Your task to perform on an android device: Open privacy settings Image 0: 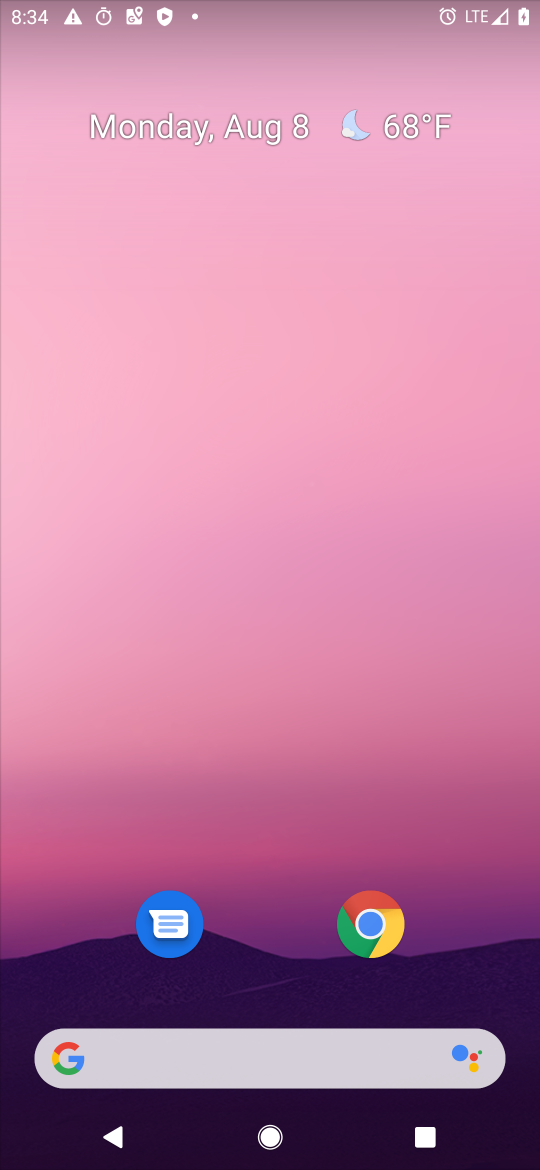
Step 0: drag from (235, 972) to (424, 42)
Your task to perform on an android device: Open privacy settings Image 1: 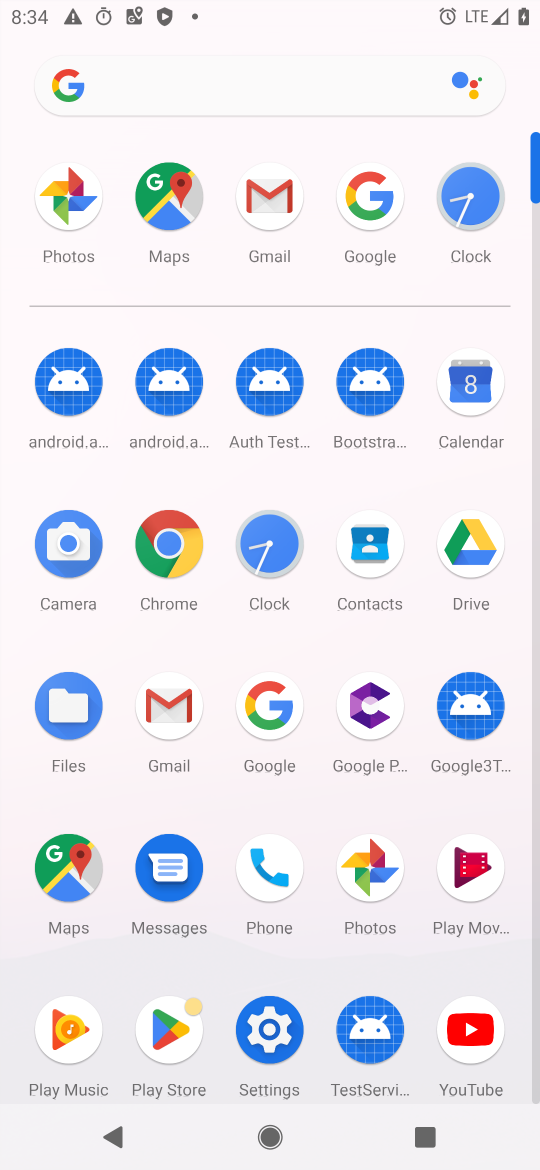
Step 1: drag from (209, 964) to (173, 156)
Your task to perform on an android device: Open privacy settings Image 2: 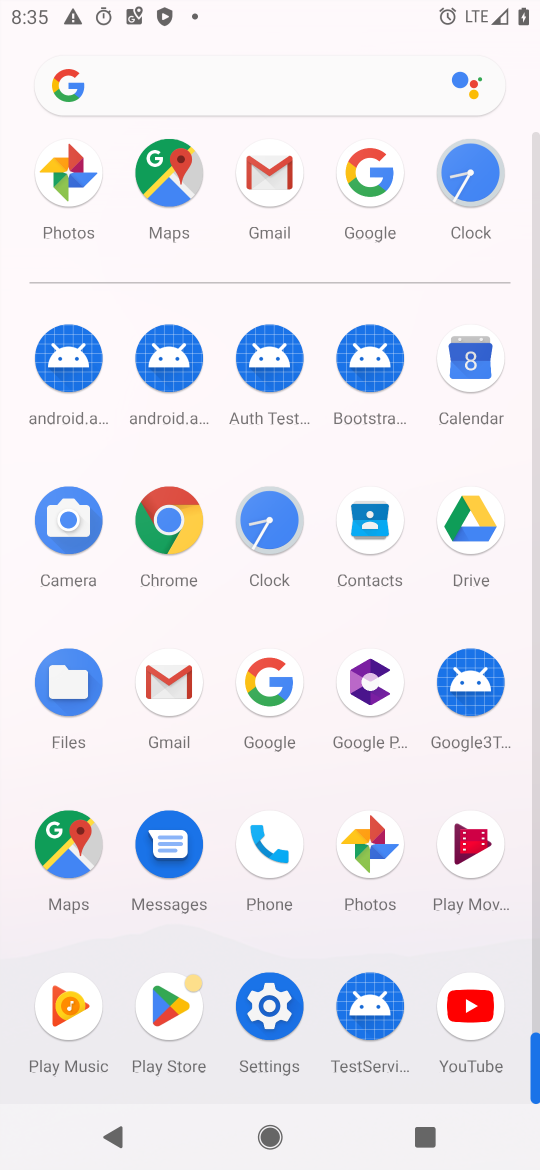
Step 2: click (251, 993)
Your task to perform on an android device: Open privacy settings Image 3: 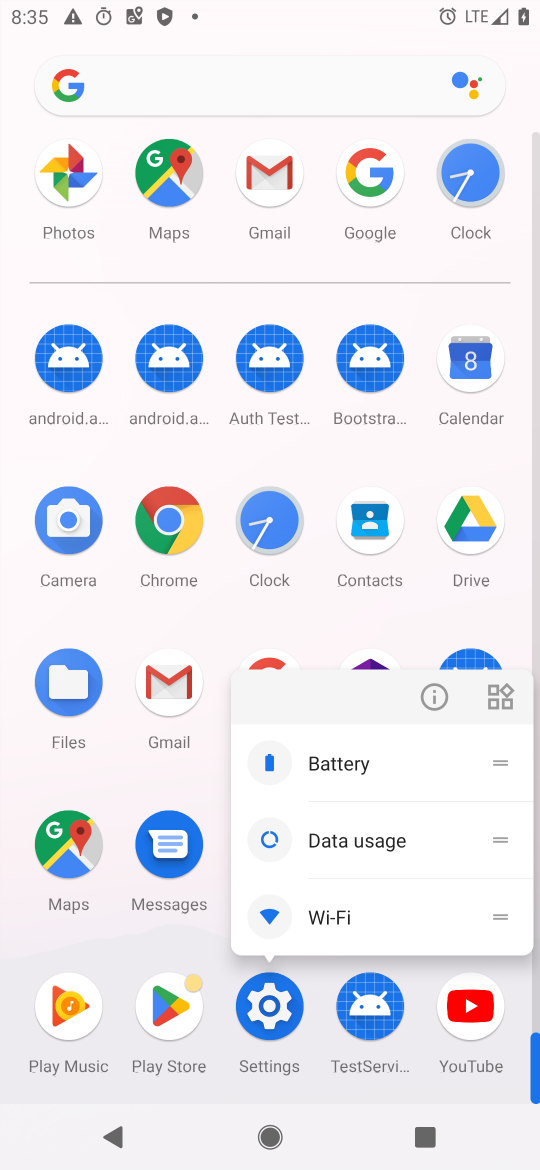
Step 3: click (436, 702)
Your task to perform on an android device: Open privacy settings Image 4: 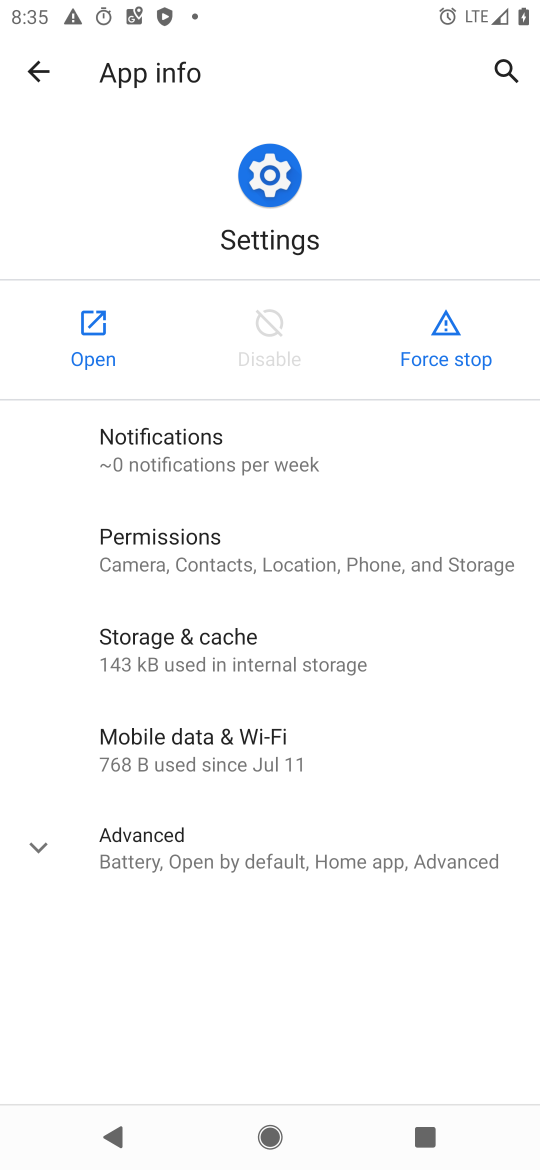
Step 4: click (94, 346)
Your task to perform on an android device: Open privacy settings Image 5: 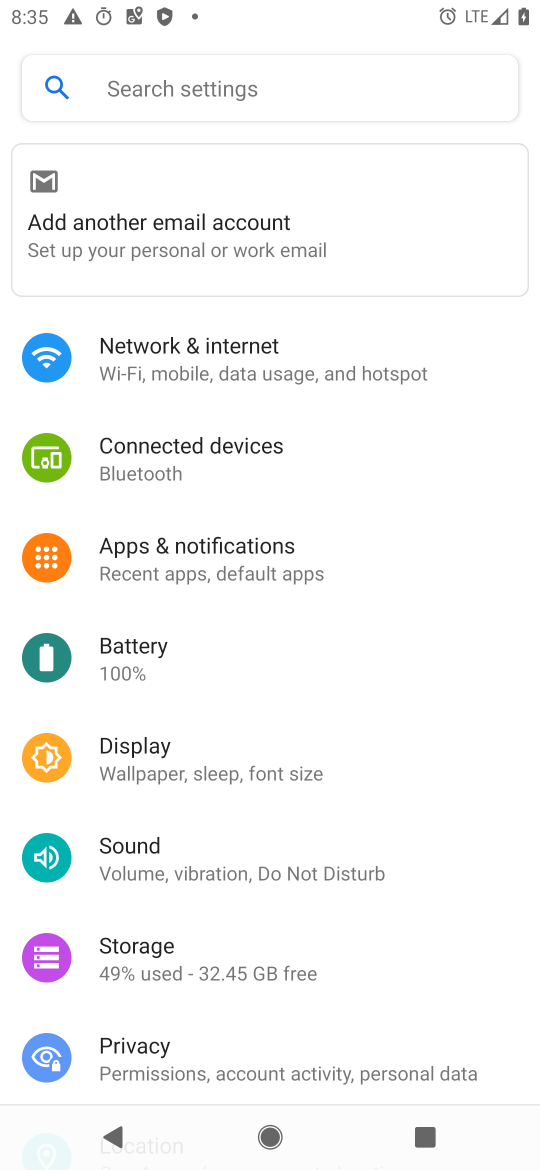
Step 5: click (195, 1054)
Your task to perform on an android device: Open privacy settings Image 6: 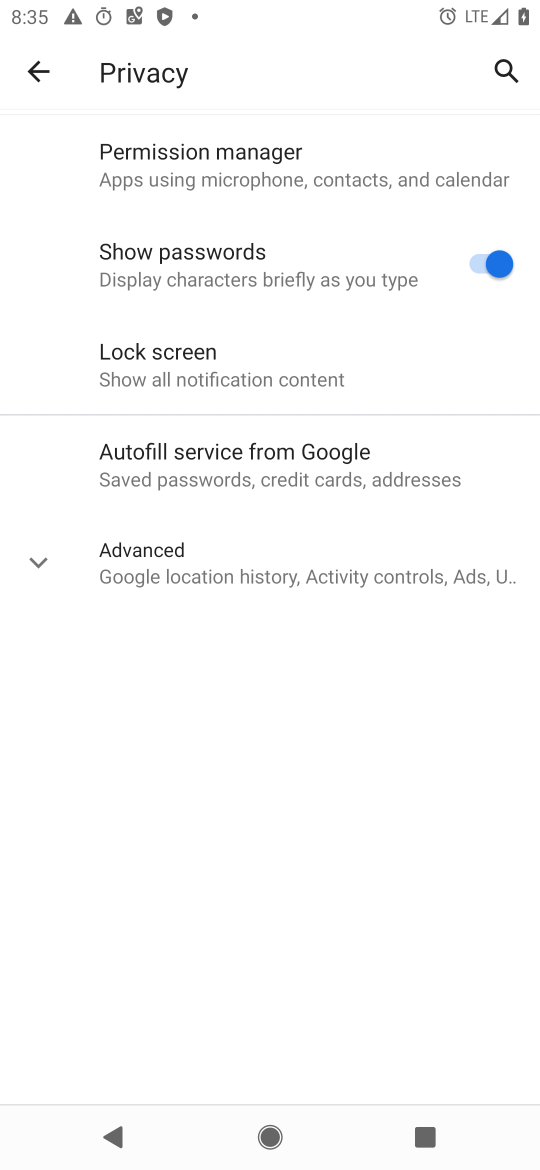
Step 6: task complete